Your task to perform on an android device: turn vacation reply on in the gmail app Image 0: 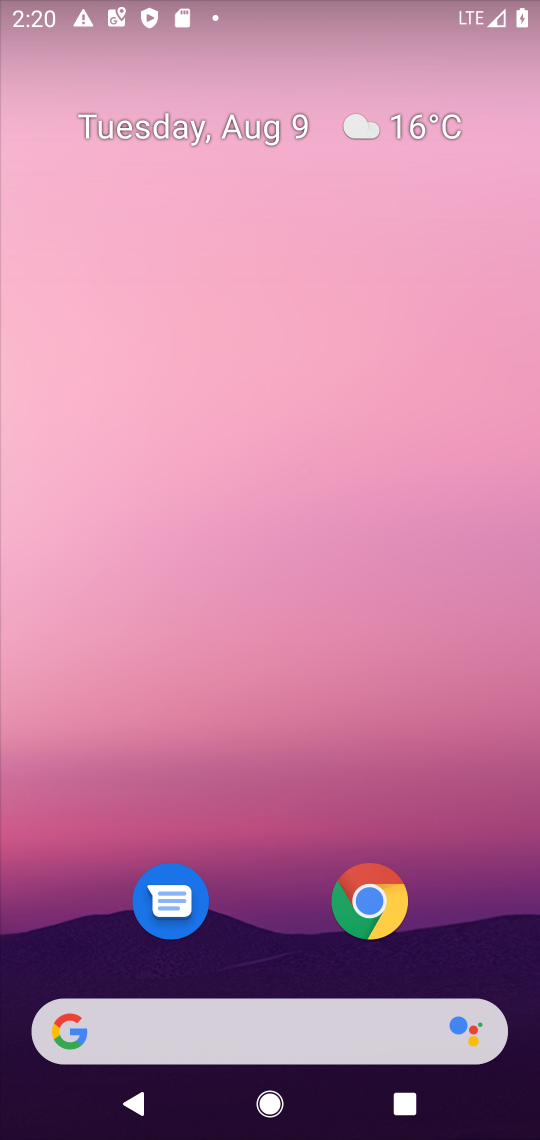
Step 0: drag from (499, 879) to (461, 132)
Your task to perform on an android device: turn vacation reply on in the gmail app Image 1: 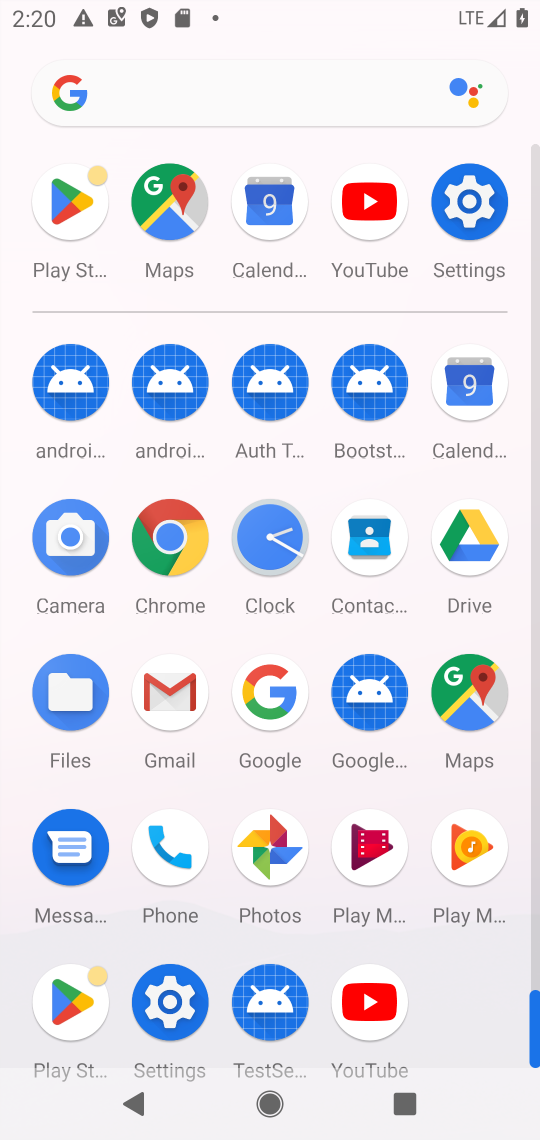
Step 1: click (170, 693)
Your task to perform on an android device: turn vacation reply on in the gmail app Image 2: 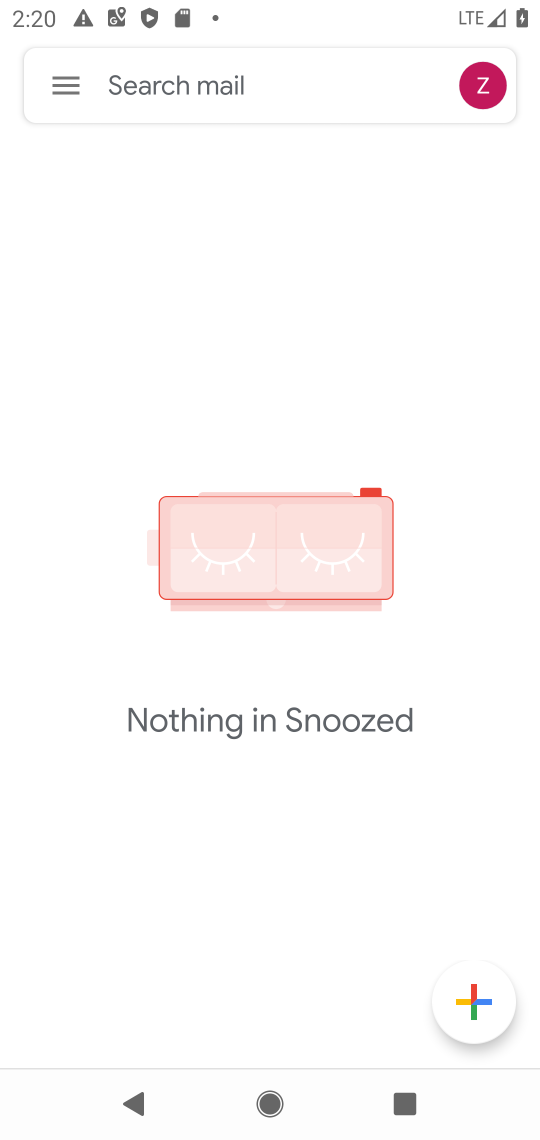
Step 2: click (65, 93)
Your task to perform on an android device: turn vacation reply on in the gmail app Image 3: 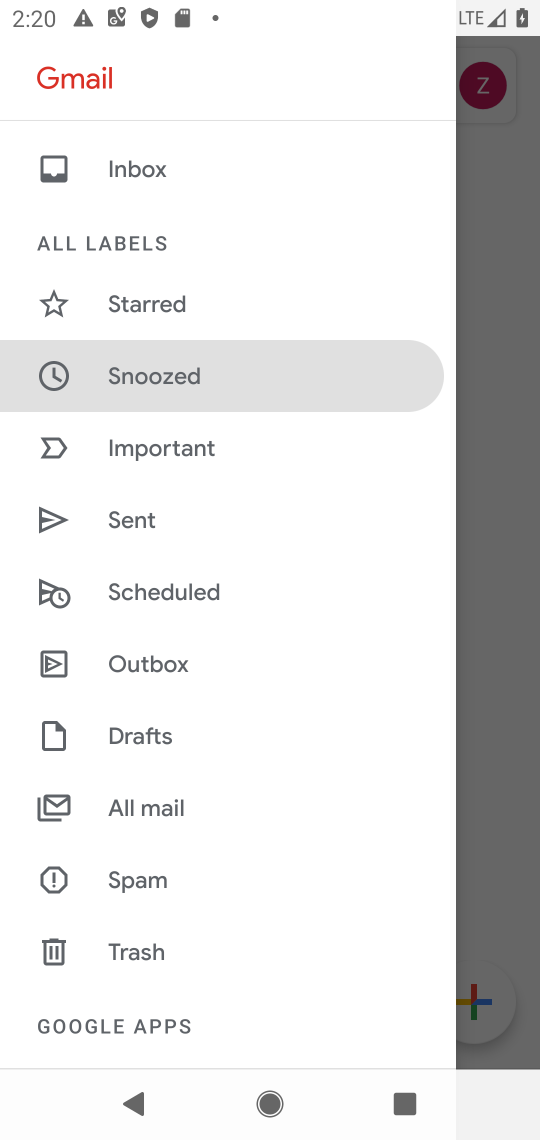
Step 3: drag from (211, 957) to (271, 44)
Your task to perform on an android device: turn vacation reply on in the gmail app Image 4: 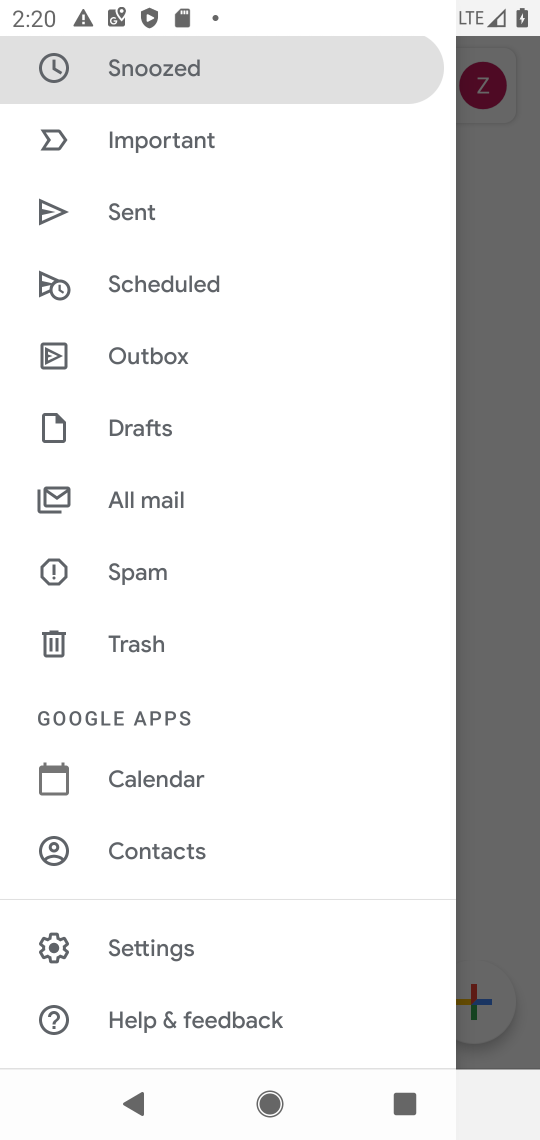
Step 4: click (152, 945)
Your task to perform on an android device: turn vacation reply on in the gmail app Image 5: 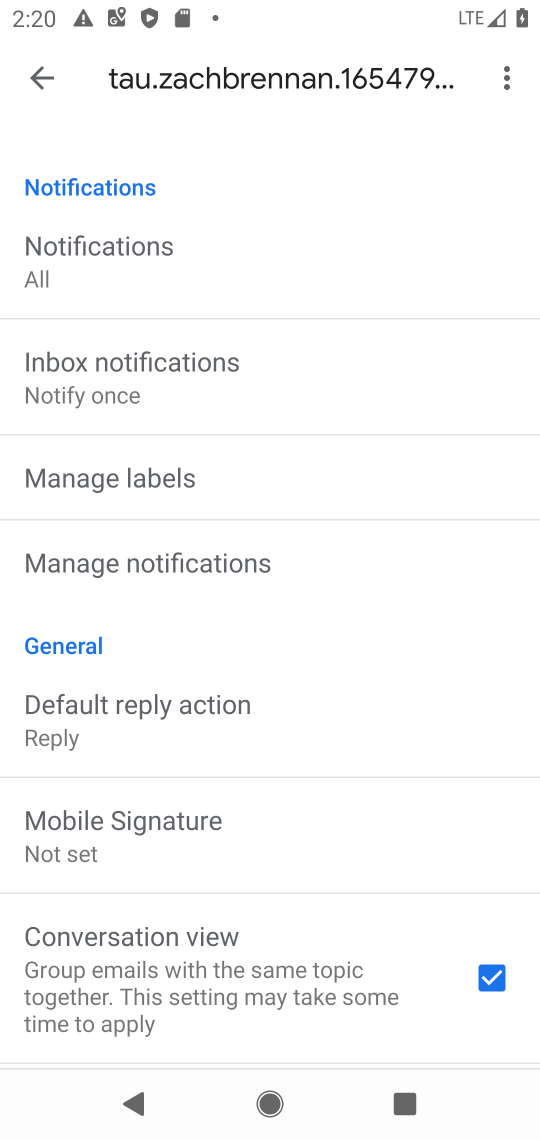
Step 5: drag from (387, 844) to (349, 262)
Your task to perform on an android device: turn vacation reply on in the gmail app Image 6: 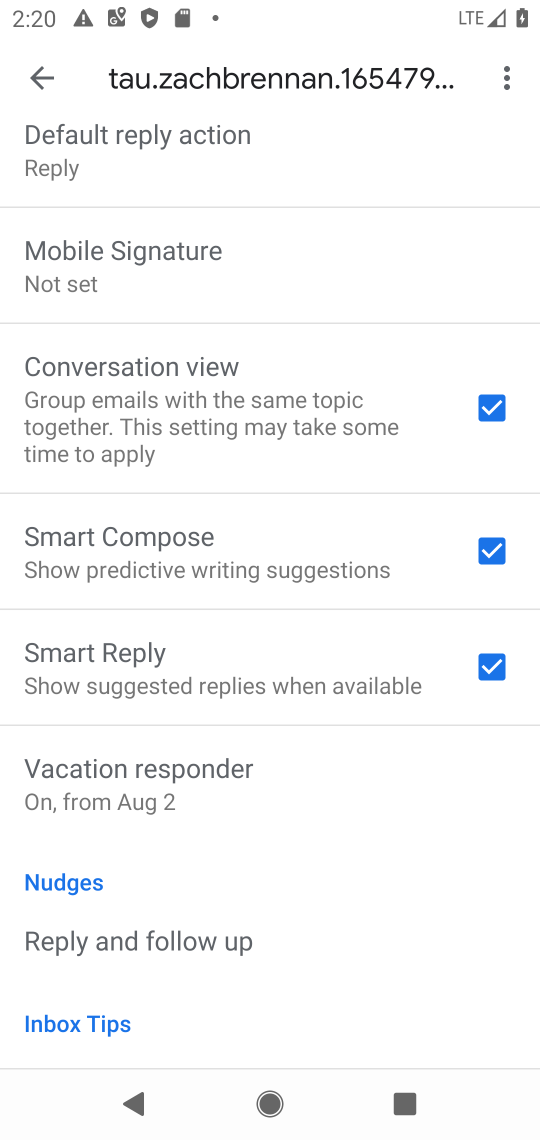
Step 6: click (163, 774)
Your task to perform on an android device: turn vacation reply on in the gmail app Image 7: 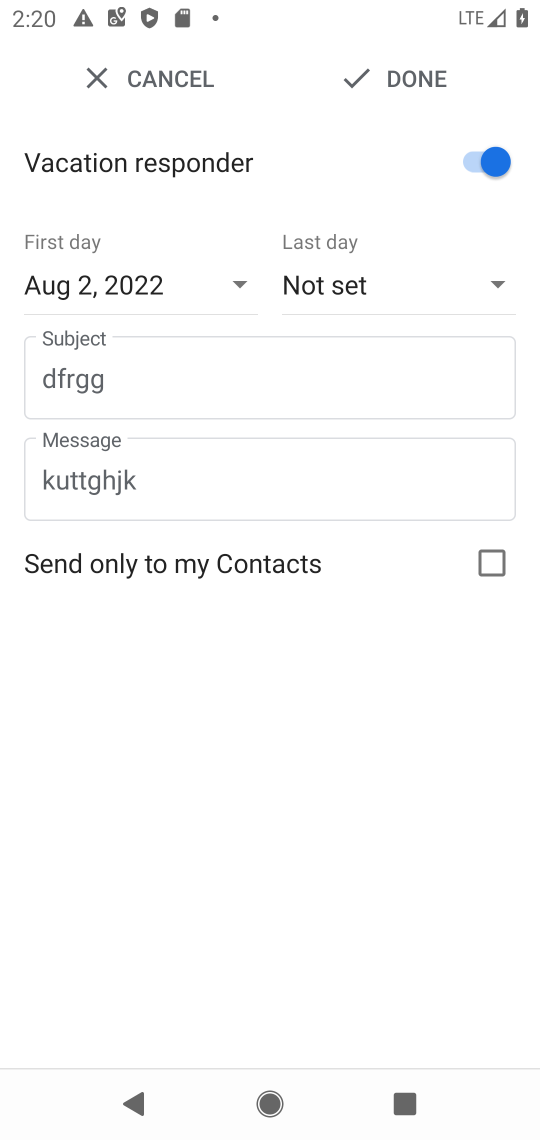
Step 7: click (399, 74)
Your task to perform on an android device: turn vacation reply on in the gmail app Image 8: 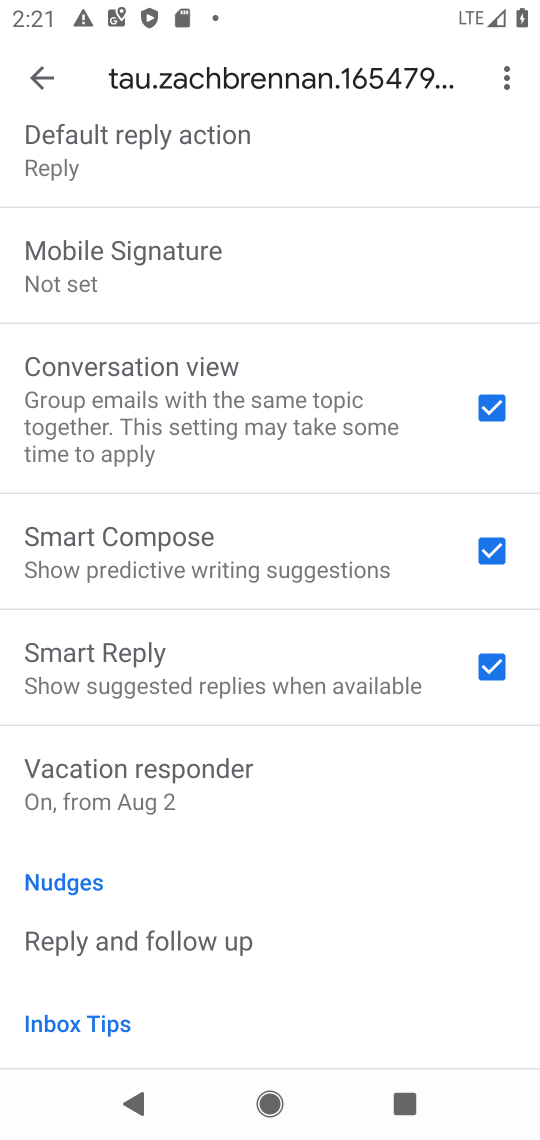
Step 8: task complete